Your task to perform on an android device: Clear the shopping cart on costco. Search for dell xps on costco, select the first entry, and add it to the cart. Image 0: 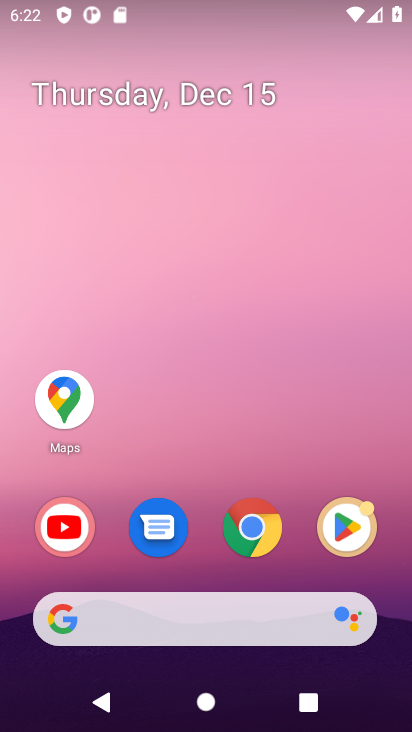
Step 0: click (251, 536)
Your task to perform on an android device: Clear the shopping cart on costco. Search for dell xps on costco, select the first entry, and add it to the cart. Image 1: 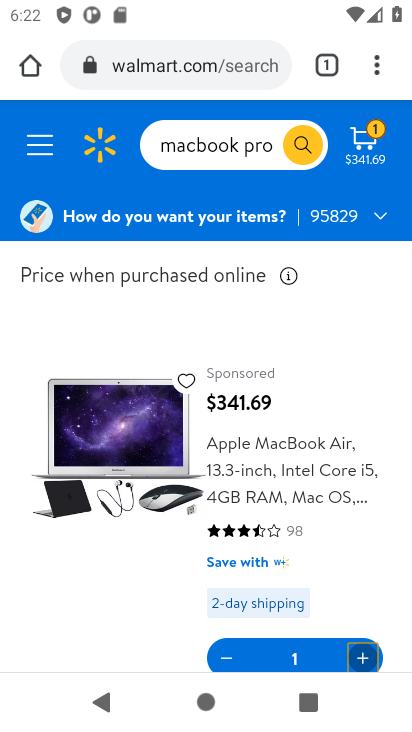
Step 1: click (204, 68)
Your task to perform on an android device: Clear the shopping cart on costco. Search for dell xps on costco, select the first entry, and add it to the cart. Image 2: 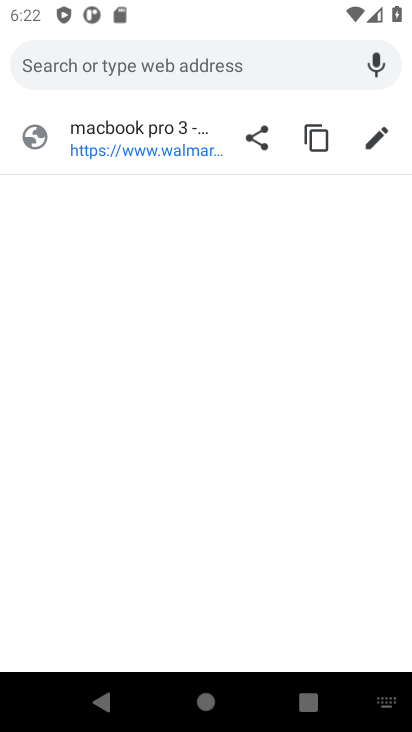
Step 2: type "costco.com"
Your task to perform on an android device: Clear the shopping cart on costco. Search for dell xps on costco, select the first entry, and add it to the cart. Image 3: 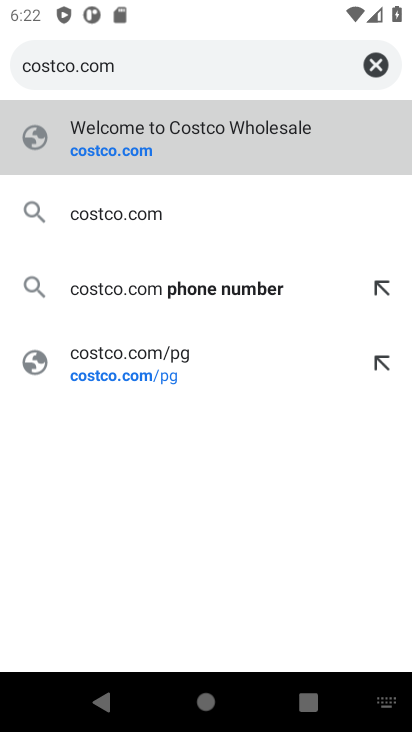
Step 3: click (153, 139)
Your task to perform on an android device: Clear the shopping cart on costco. Search for dell xps on costco, select the first entry, and add it to the cart. Image 4: 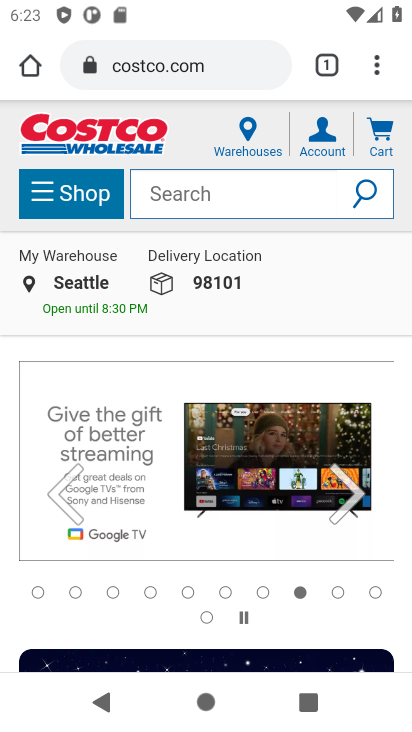
Step 4: click (241, 198)
Your task to perform on an android device: Clear the shopping cart on costco. Search for dell xps on costco, select the first entry, and add it to the cart. Image 5: 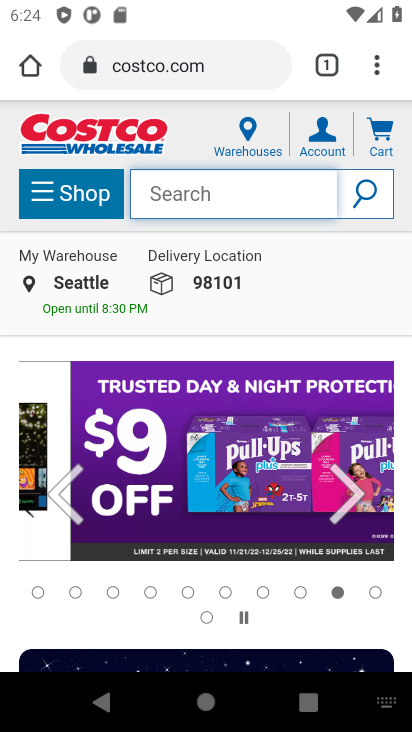
Step 5: type "dell xps"
Your task to perform on an android device: Clear the shopping cart on costco. Search for dell xps on costco, select the first entry, and add it to the cart. Image 6: 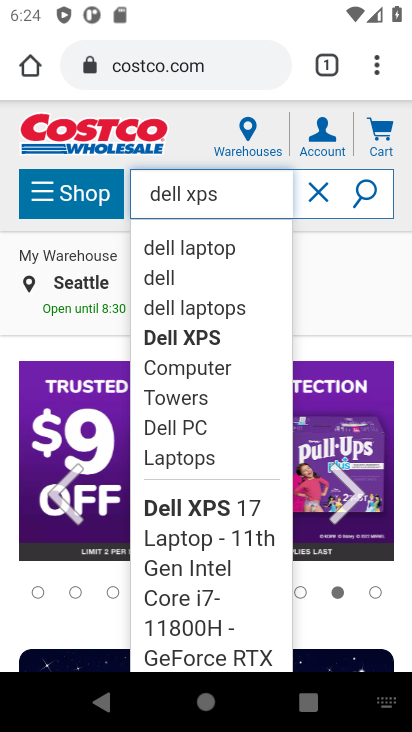
Step 6: click (170, 333)
Your task to perform on an android device: Clear the shopping cart on costco. Search for dell xps on costco, select the first entry, and add it to the cart. Image 7: 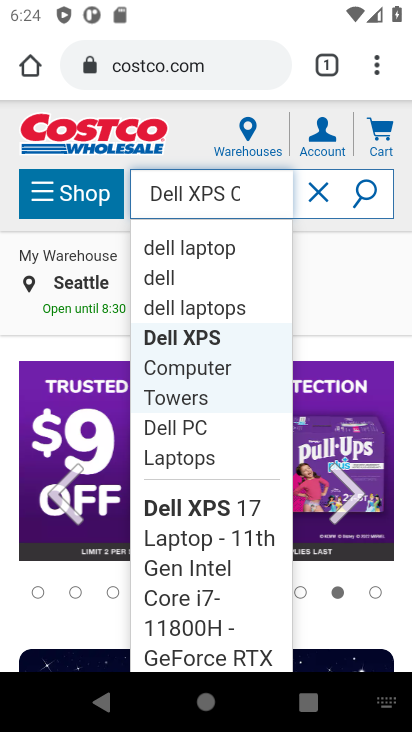
Step 7: click (354, 192)
Your task to perform on an android device: Clear the shopping cart on costco. Search for dell xps on costco, select the first entry, and add it to the cart. Image 8: 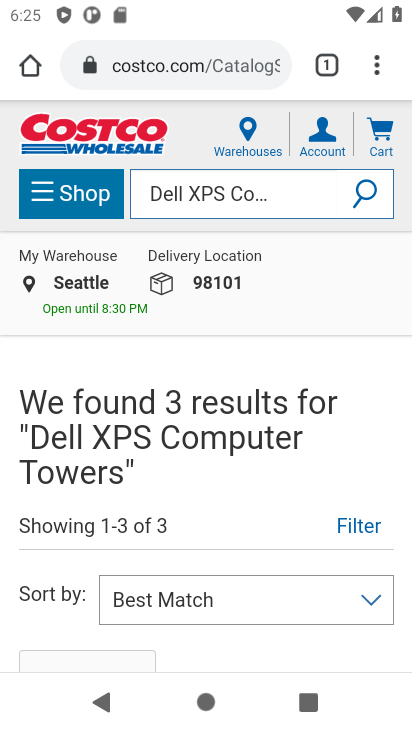
Step 8: task complete